Your task to perform on an android device: Open Maps and search for coffee Image 0: 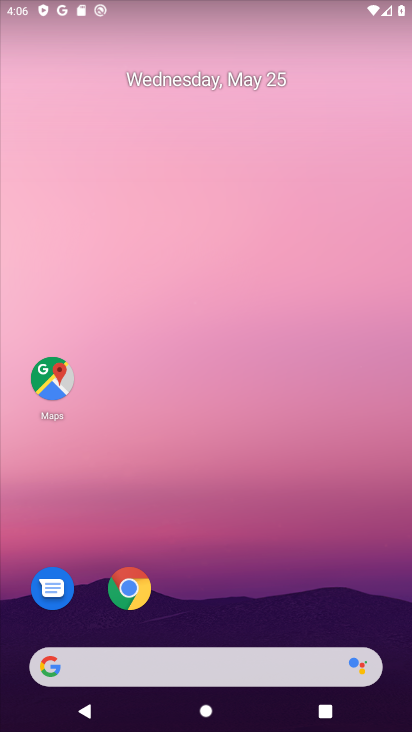
Step 0: click (48, 372)
Your task to perform on an android device: Open Maps and search for coffee Image 1: 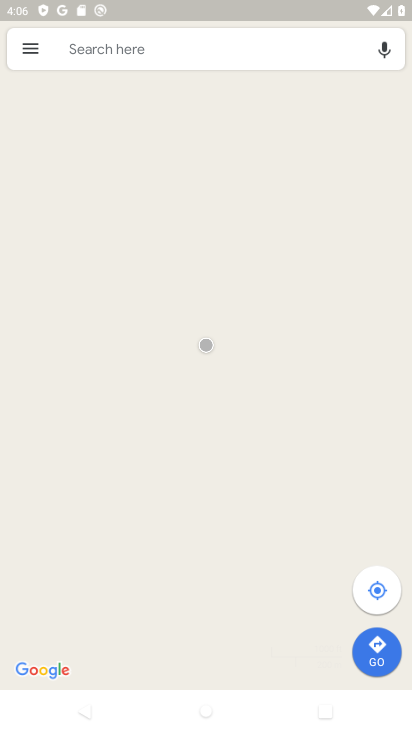
Step 1: click (121, 48)
Your task to perform on an android device: Open Maps and search for coffee Image 2: 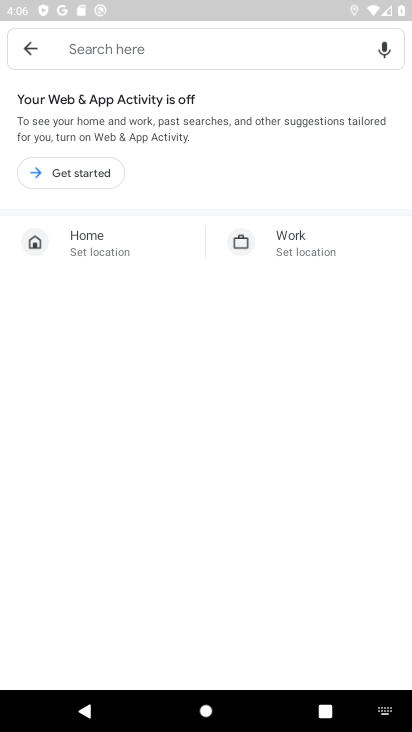
Step 2: type "coffee"
Your task to perform on an android device: Open Maps and search for coffee Image 3: 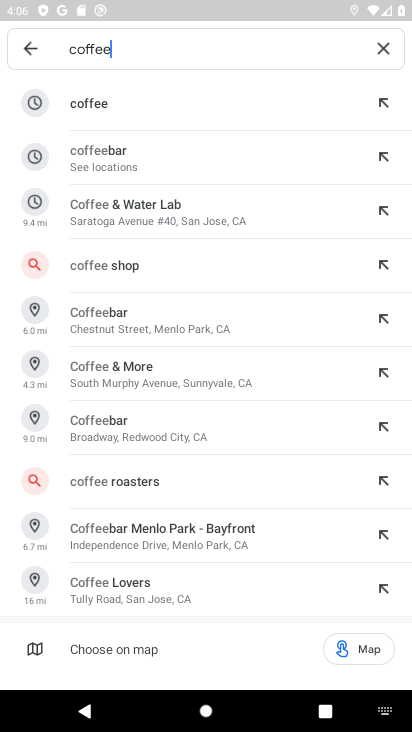
Step 3: click (197, 101)
Your task to perform on an android device: Open Maps and search for coffee Image 4: 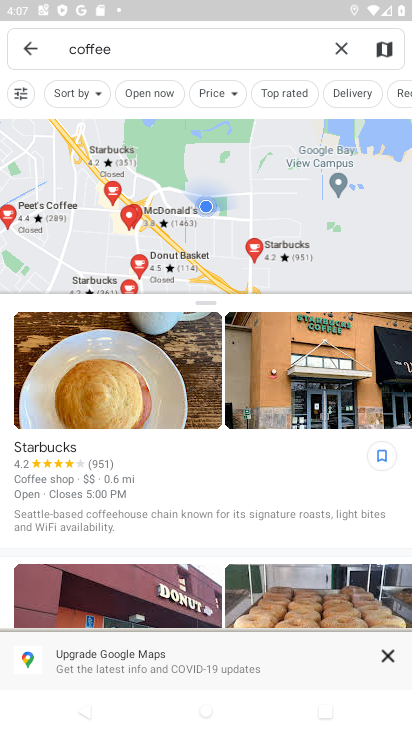
Step 4: task complete